Your task to perform on an android device: turn on location history Image 0: 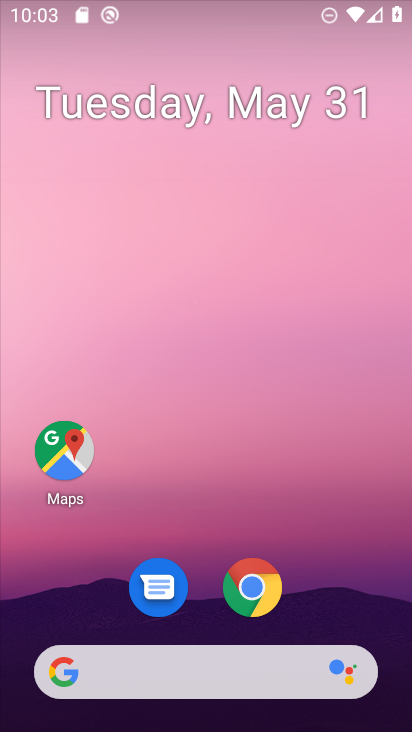
Step 0: press home button
Your task to perform on an android device: turn on location history Image 1: 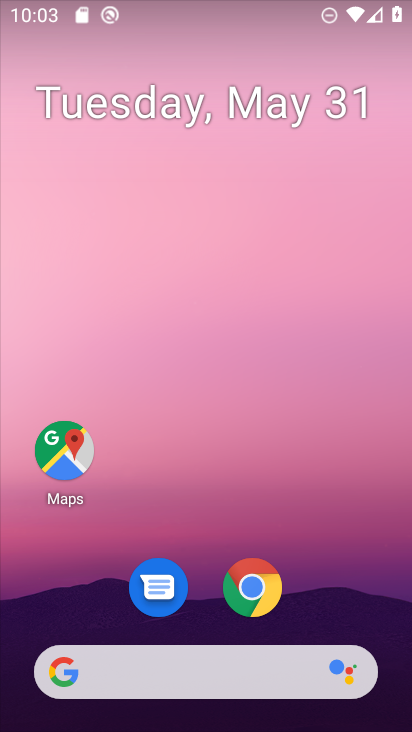
Step 1: drag from (209, 634) to (243, 171)
Your task to perform on an android device: turn on location history Image 2: 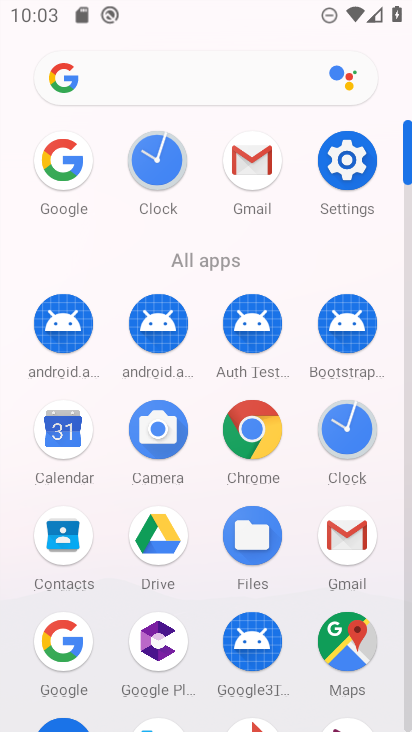
Step 2: click (345, 153)
Your task to perform on an android device: turn on location history Image 3: 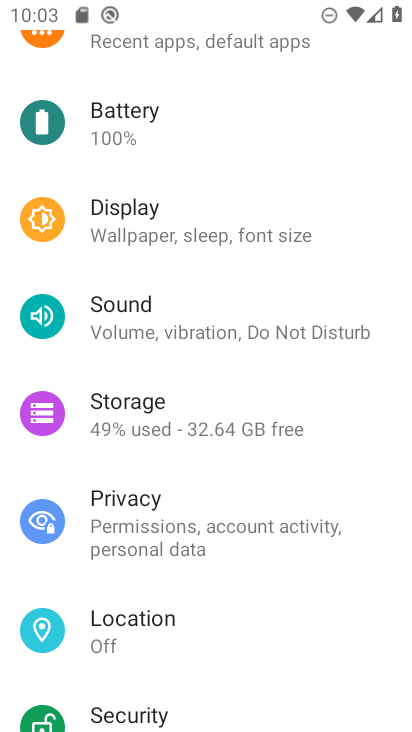
Step 3: click (142, 633)
Your task to perform on an android device: turn on location history Image 4: 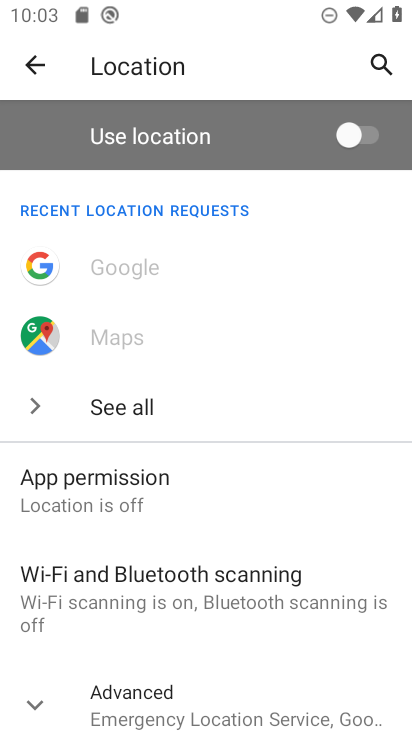
Step 4: click (367, 128)
Your task to perform on an android device: turn on location history Image 5: 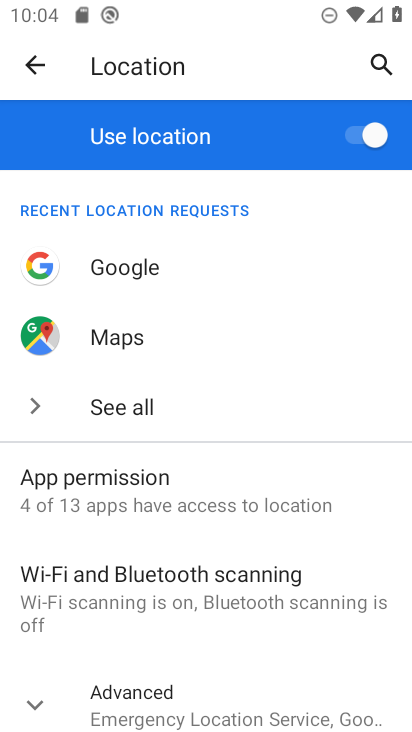
Step 5: drag from (220, 576) to (262, 184)
Your task to perform on an android device: turn on location history Image 6: 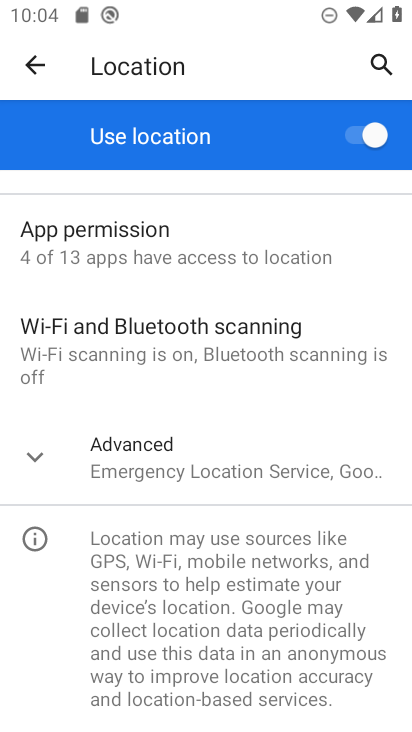
Step 6: click (30, 448)
Your task to perform on an android device: turn on location history Image 7: 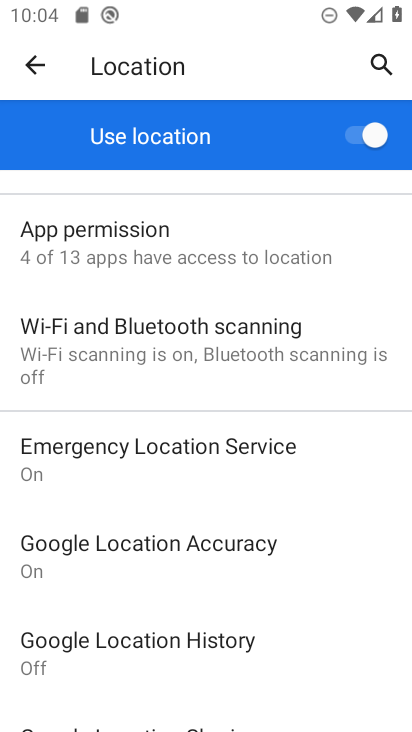
Step 7: click (90, 653)
Your task to perform on an android device: turn on location history Image 8: 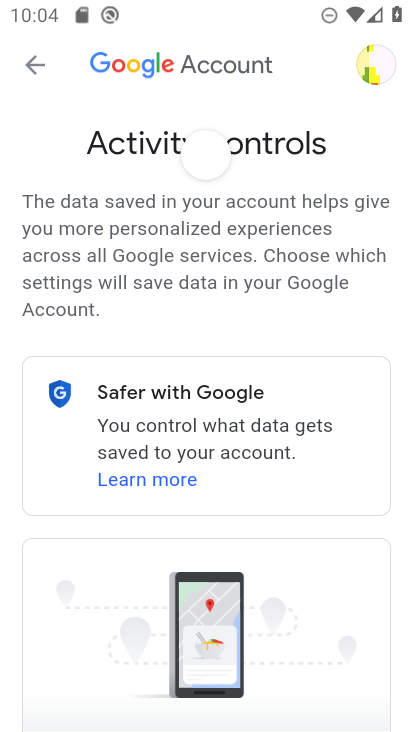
Step 8: task complete